Your task to perform on an android device: What's the weather going to be tomorrow? Image 0: 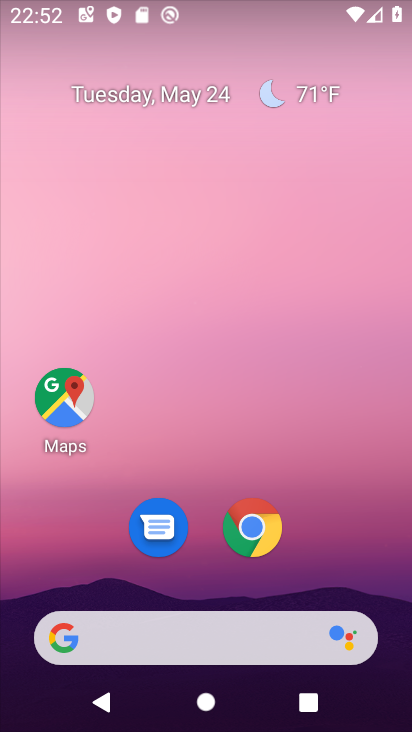
Step 0: click (167, 628)
Your task to perform on an android device: What's the weather going to be tomorrow? Image 1: 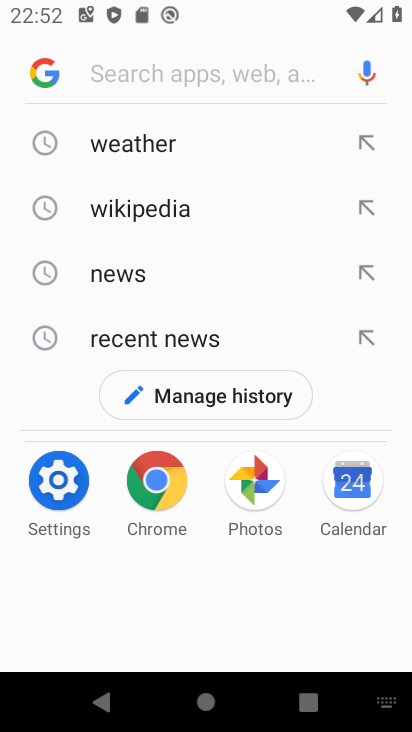
Step 1: type "what's the weather going to be tomorrow"
Your task to perform on an android device: What's the weather going to be tomorrow? Image 2: 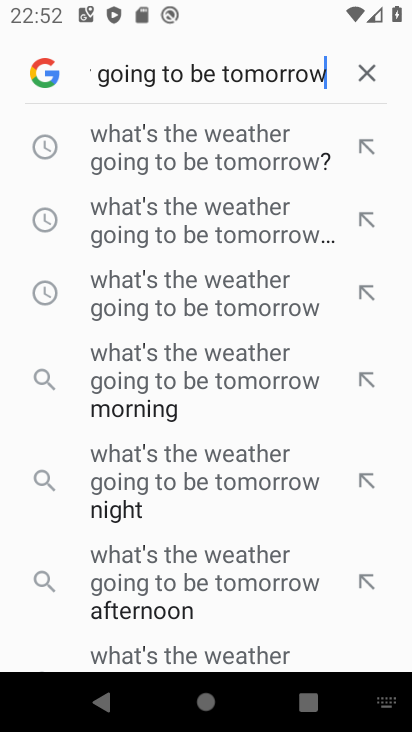
Step 2: click (209, 156)
Your task to perform on an android device: What's the weather going to be tomorrow? Image 3: 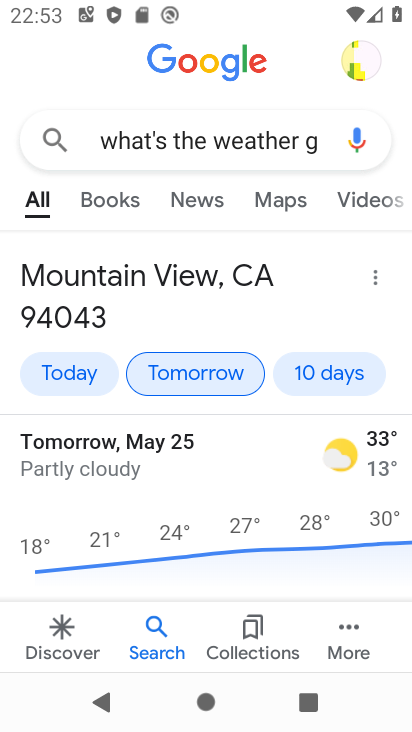
Step 3: task complete